Your task to perform on an android device: Open ESPN.com Image 0: 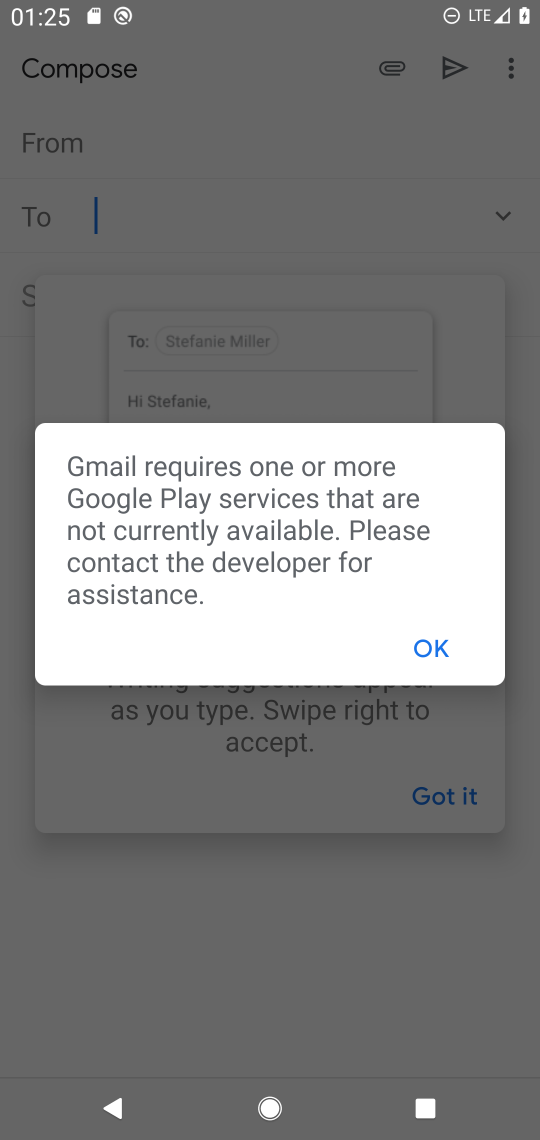
Step 0: press home button
Your task to perform on an android device: Open ESPN.com Image 1: 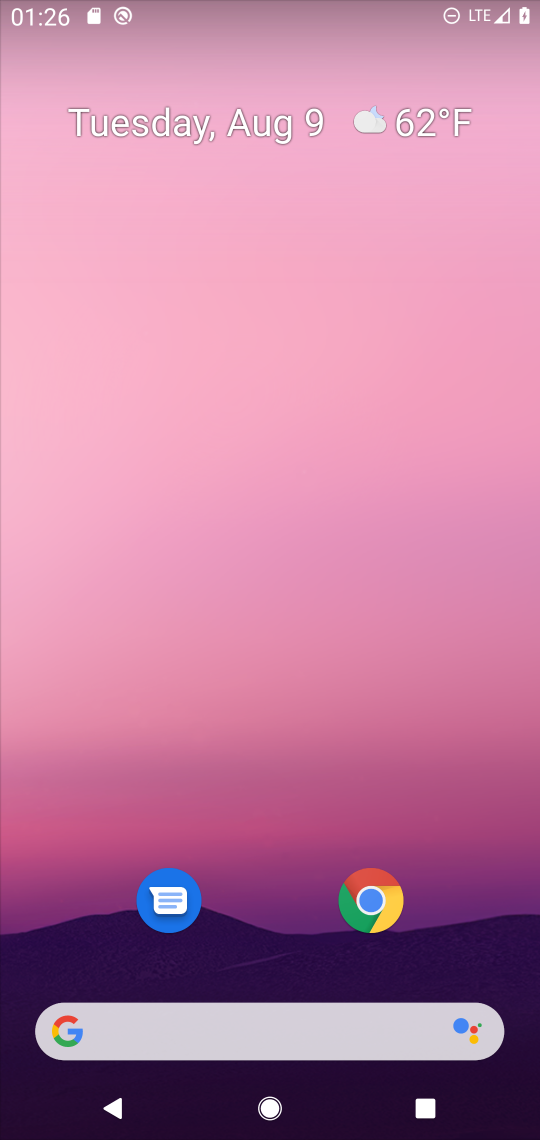
Step 1: drag from (468, 902) to (496, 151)
Your task to perform on an android device: Open ESPN.com Image 2: 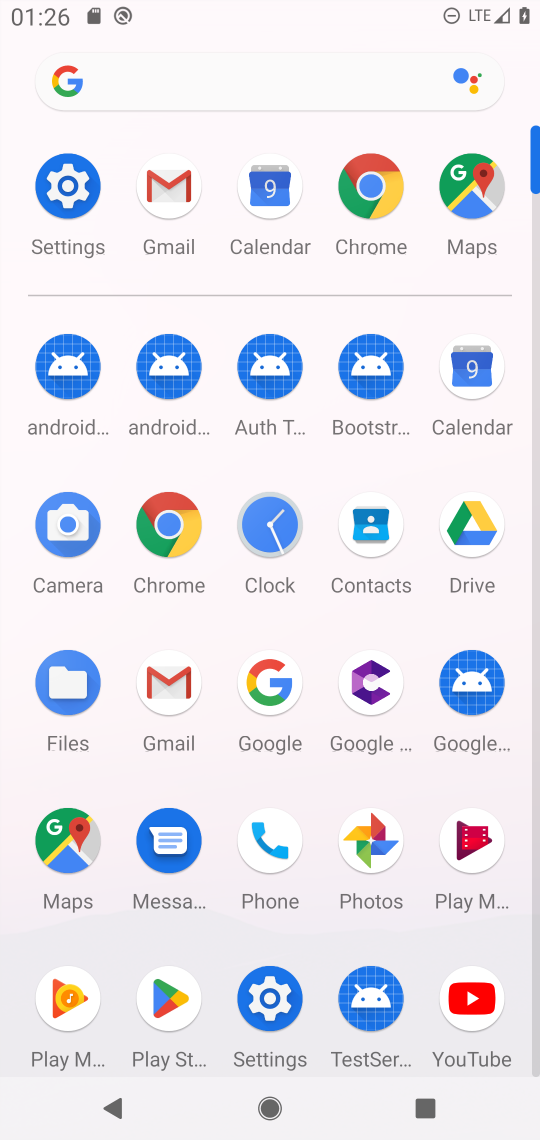
Step 2: click (169, 523)
Your task to perform on an android device: Open ESPN.com Image 3: 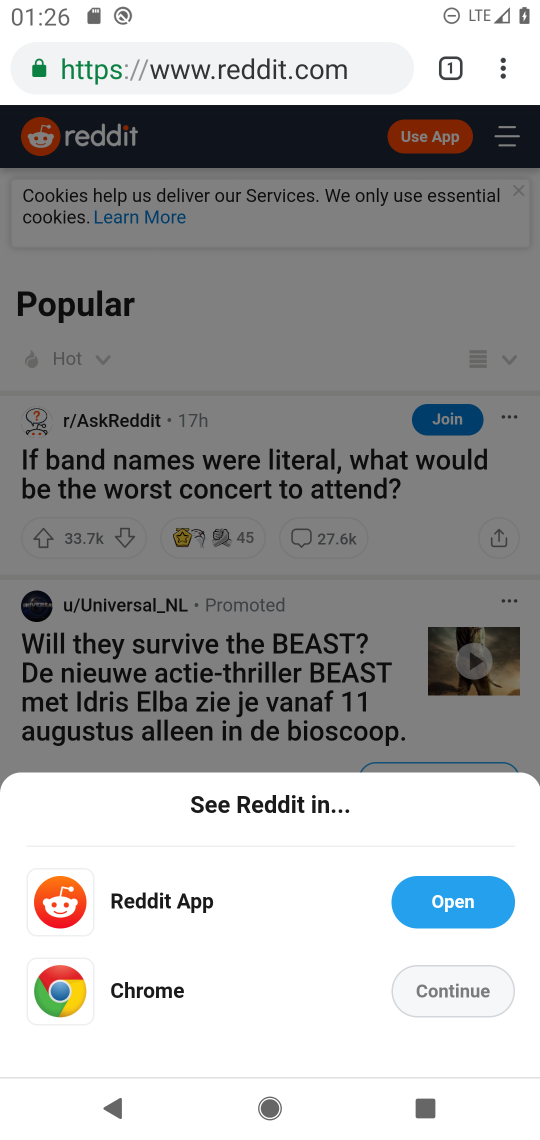
Step 3: click (266, 63)
Your task to perform on an android device: Open ESPN.com Image 4: 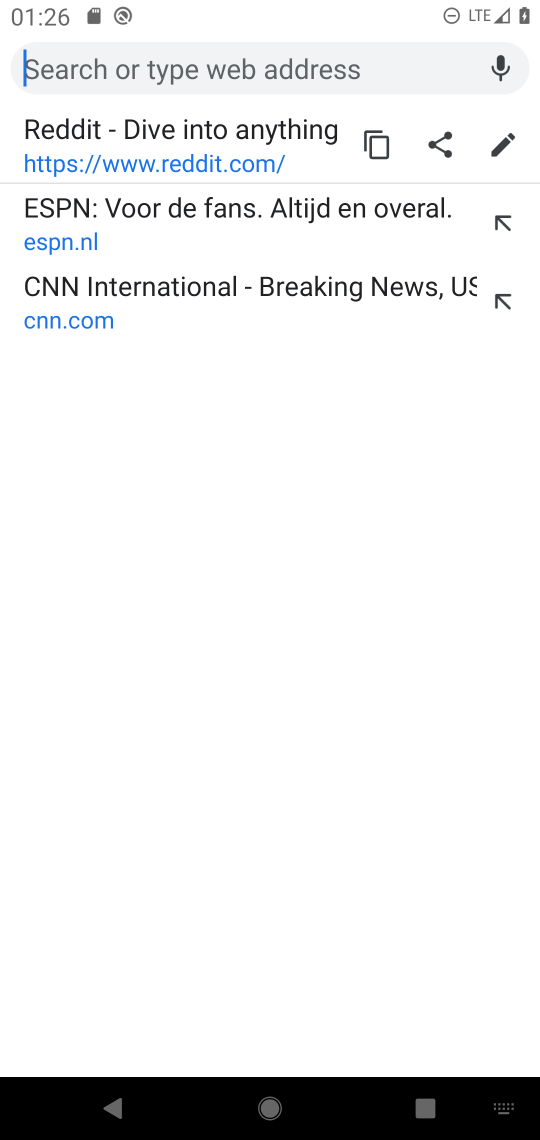
Step 4: type "espn com"
Your task to perform on an android device: Open ESPN.com Image 5: 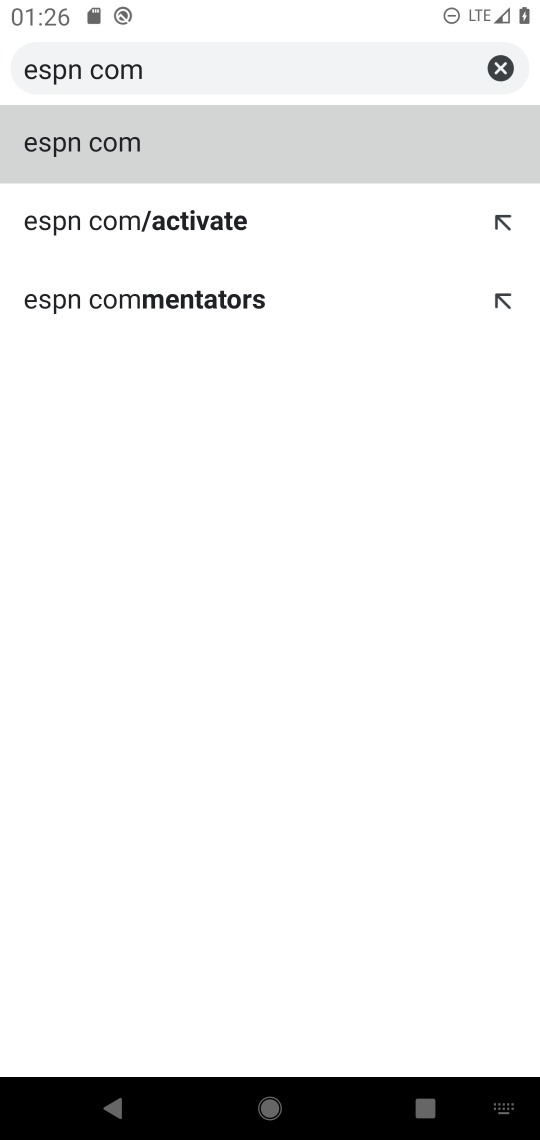
Step 5: click (145, 153)
Your task to perform on an android device: Open ESPN.com Image 6: 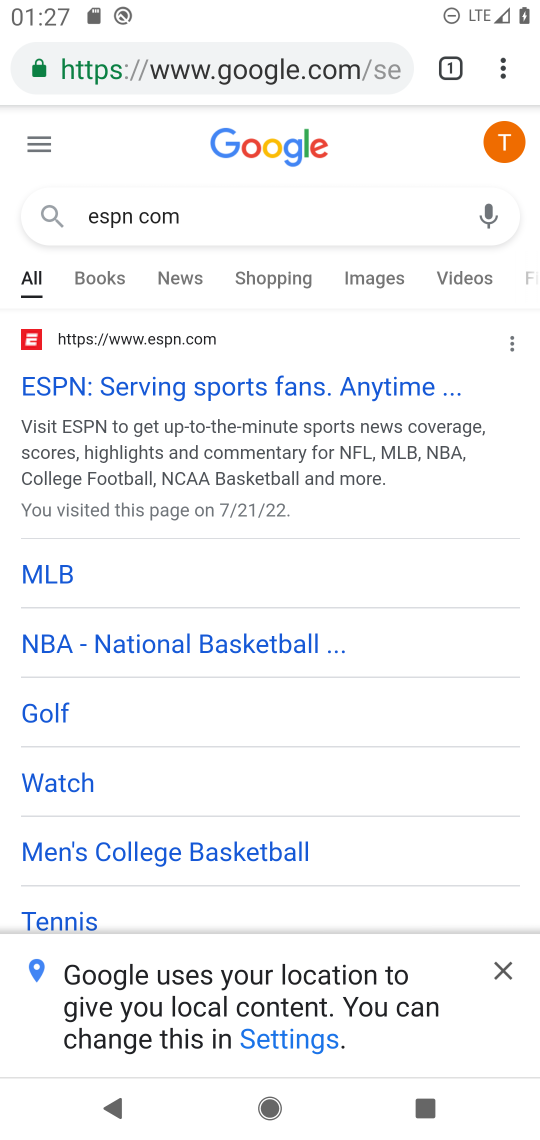
Step 6: task complete